Your task to perform on an android device: add a contact in the contacts app Image 0: 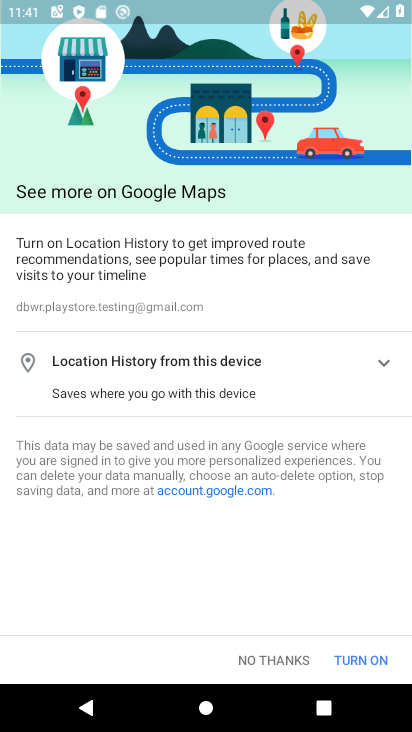
Step 0: press home button
Your task to perform on an android device: add a contact in the contacts app Image 1: 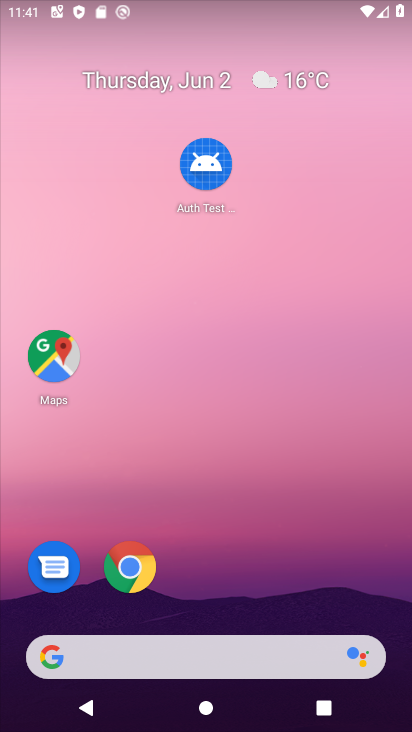
Step 1: drag from (178, 616) to (253, 9)
Your task to perform on an android device: add a contact in the contacts app Image 2: 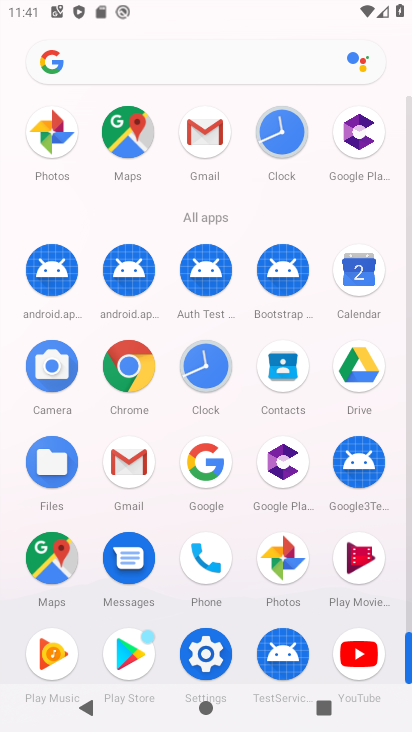
Step 2: click (211, 557)
Your task to perform on an android device: add a contact in the contacts app Image 3: 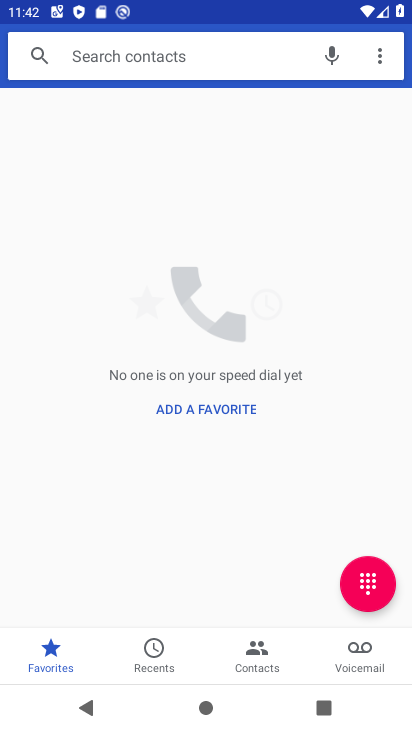
Step 3: click (245, 656)
Your task to perform on an android device: add a contact in the contacts app Image 4: 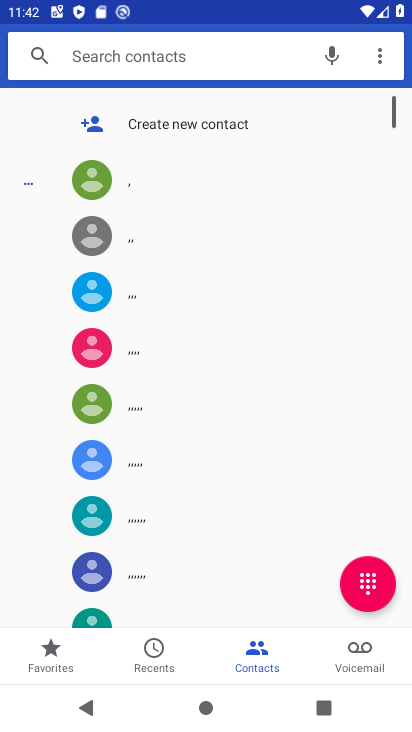
Step 4: click (189, 123)
Your task to perform on an android device: add a contact in the contacts app Image 5: 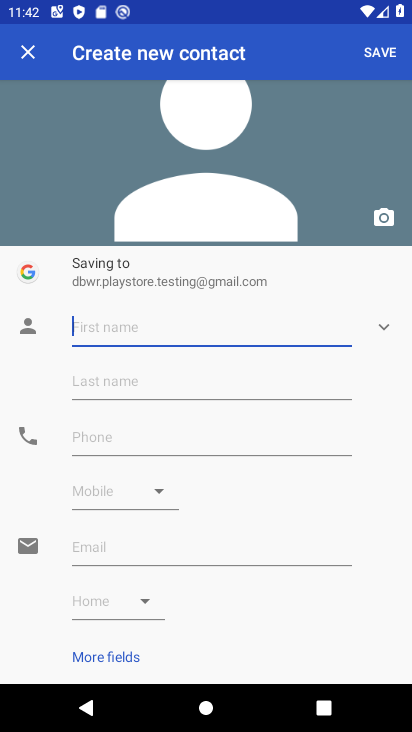
Step 5: type "iujhgbv"
Your task to perform on an android device: add a contact in the contacts app Image 6: 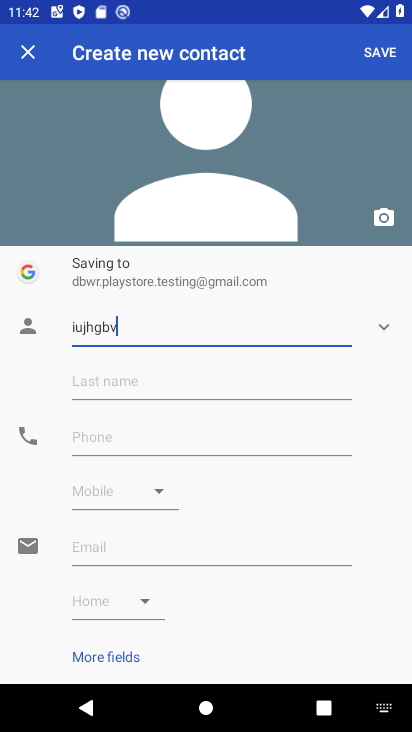
Step 6: click (114, 465)
Your task to perform on an android device: add a contact in the contacts app Image 7: 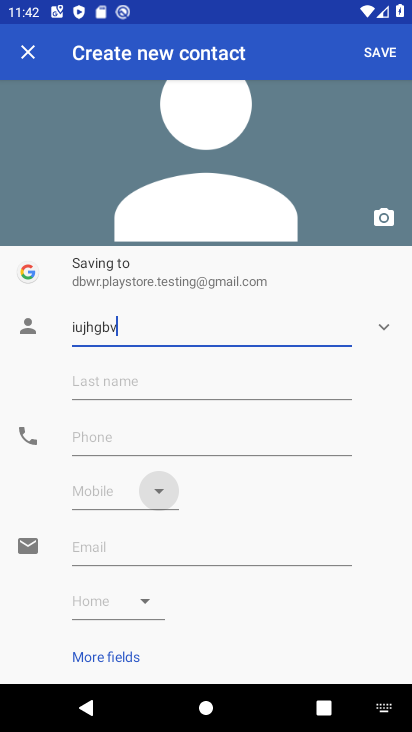
Step 7: click (105, 447)
Your task to perform on an android device: add a contact in the contacts app Image 8: 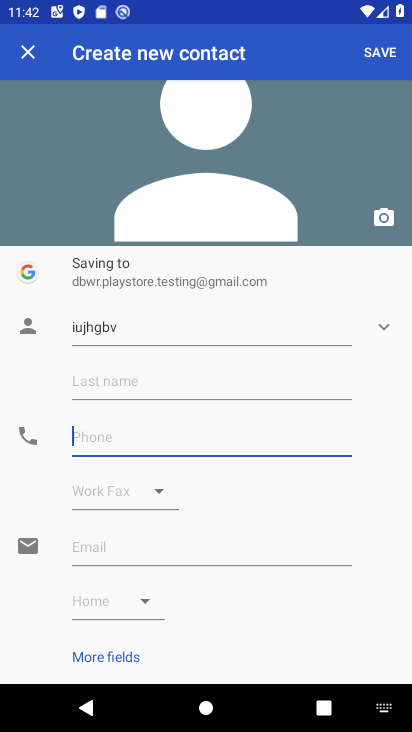
Step 8: type "e4567890"
Your task to perform on an android device: add a contact in the contacts app Image 9: 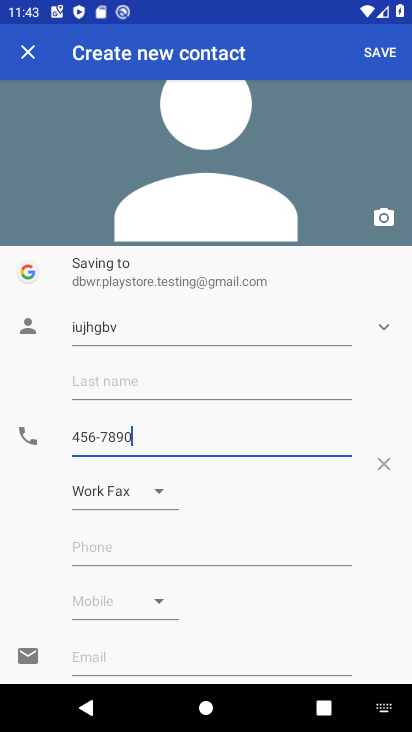
Step 9: click (371, 61)
Your task to perform on an android device: add a contact in the contacts app Image 10: 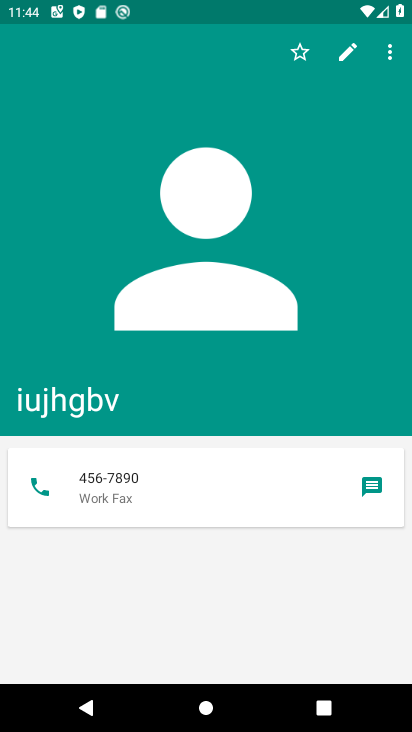
Step 10: task complete